Your task to perform on an android device: Go to settings Image 0: 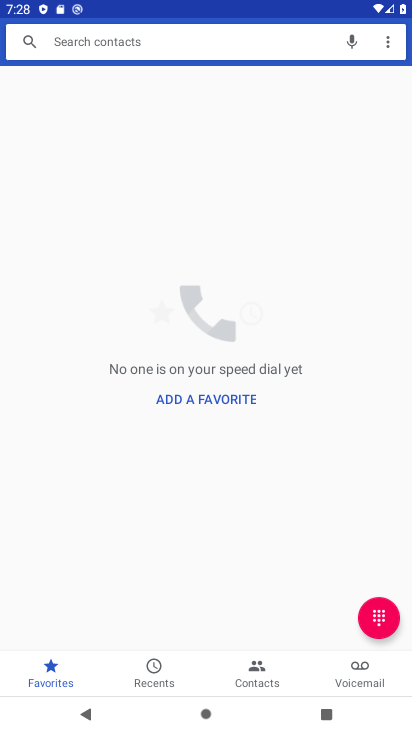
Step 0: press home button
Your task to perform on an android device: Go to settings Image 1: 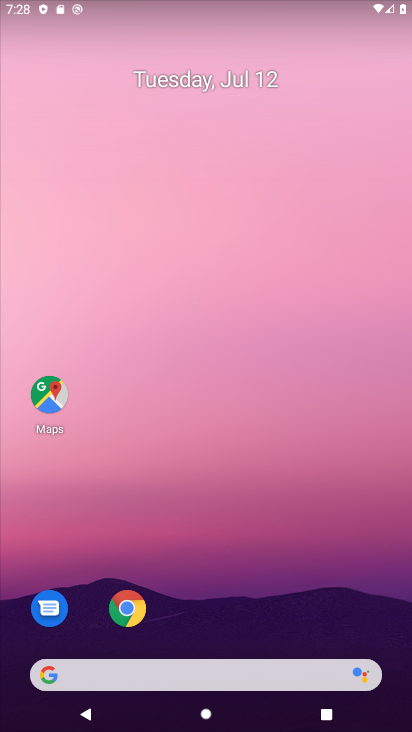
Step 1: drag from (208, 668) to (359, 128)
Your task to perform on an android device: Go to settings Image 2: 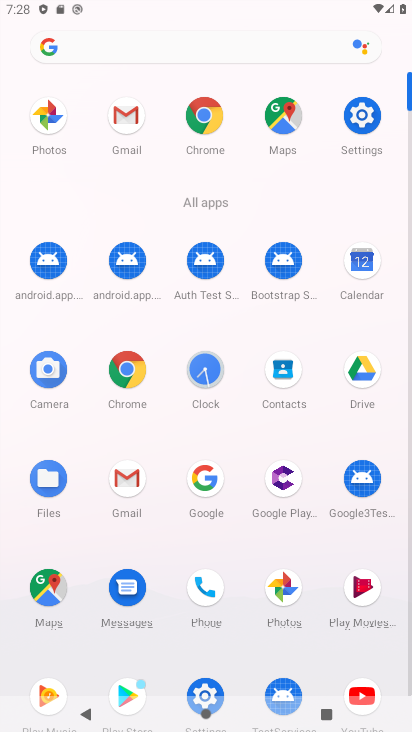
Step 2: click (365, 114)
Your task to perform on an android device: Go to settings Image 3: 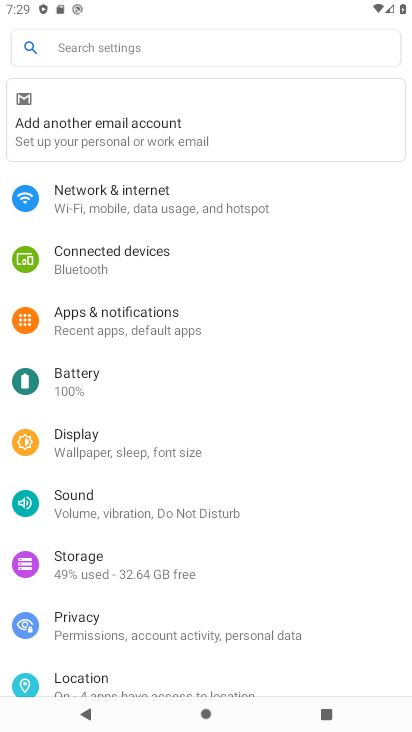
Step 3: task complete